Your task to perform on an android device: Open Yahoo.com Image 0: 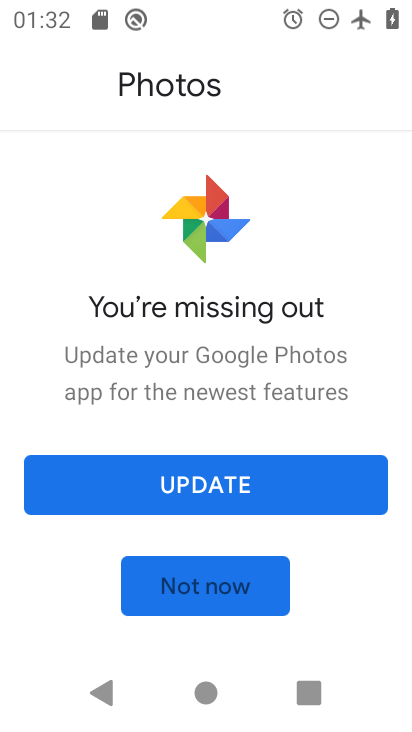
Step 0: press home button
Your task to perform on an android device: Open Yahoo.com Image 1: 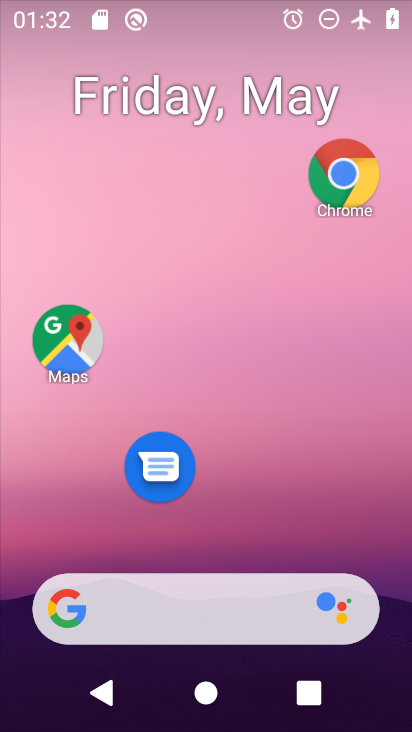
Step 1: drag from (236, 504) to (278, 230)
Your task to perform on an android device: Open Yahoo.com Image 2: 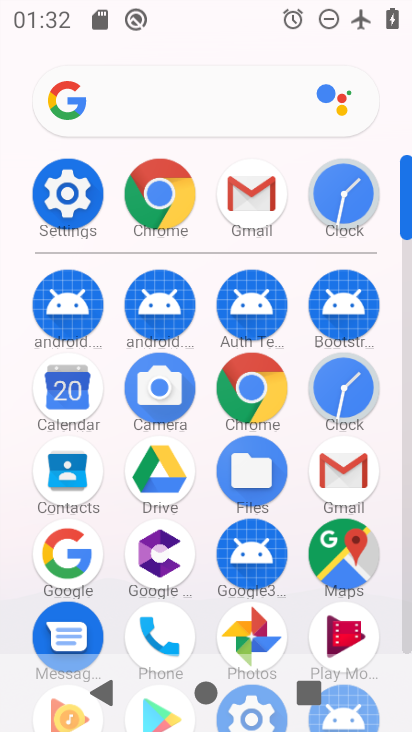
Step 2: click (241, 382)
Your task to perform on an android device: Open Yahoo.com Image 3: 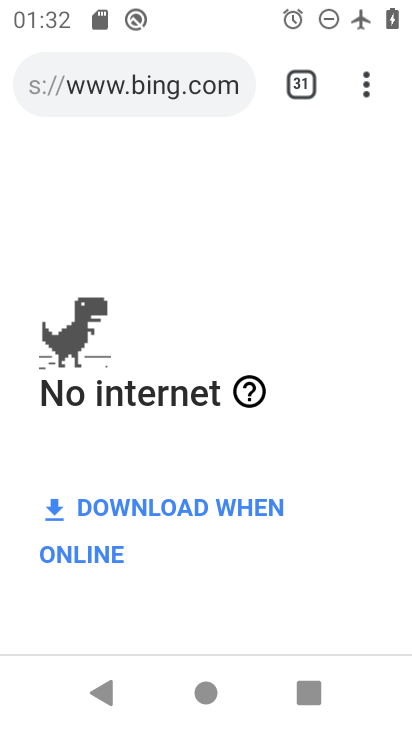
Step 3: click (374, 81)
Your task to perform on an android device: Open Yahoo.com Image 4: 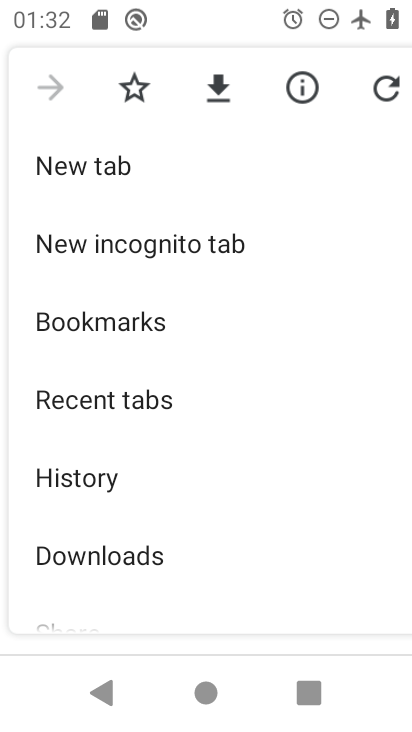
Step 4: click (93, 174)
Your task to perform on an android device: Open Yahoo.com Image 5: 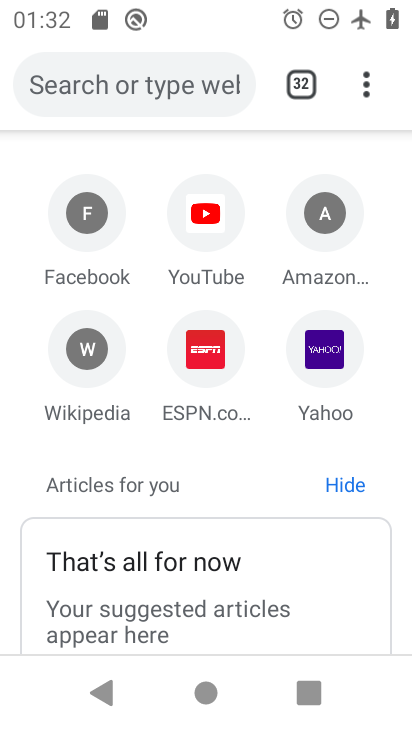
Step 5: click (320, 342)
Your task to perform on an android device: Open Yahoo.com Image 6: 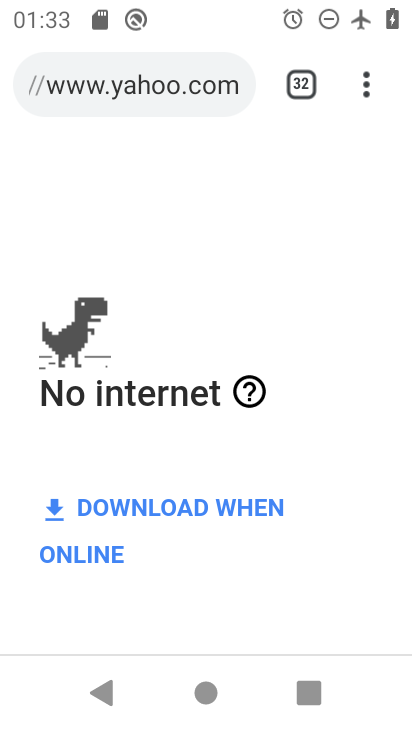
Step 6: task complete